Your task to perform on an android device: turn off improve location accuracy Image 0: 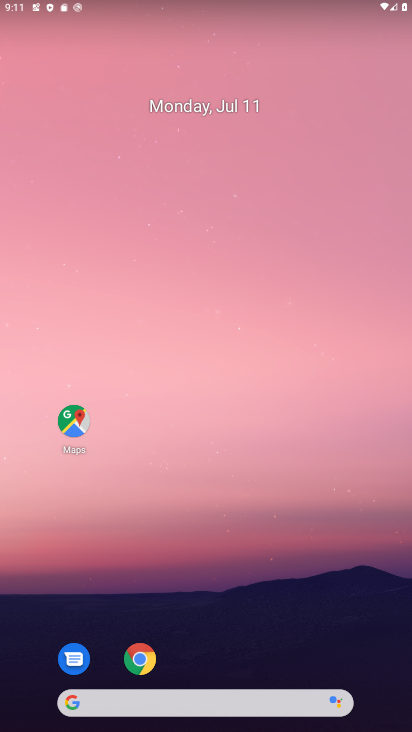
Step 0: drag from (196, 697) to (164, 68)
Your task to perform on an android device: turn off improve location accuracy Image 1: 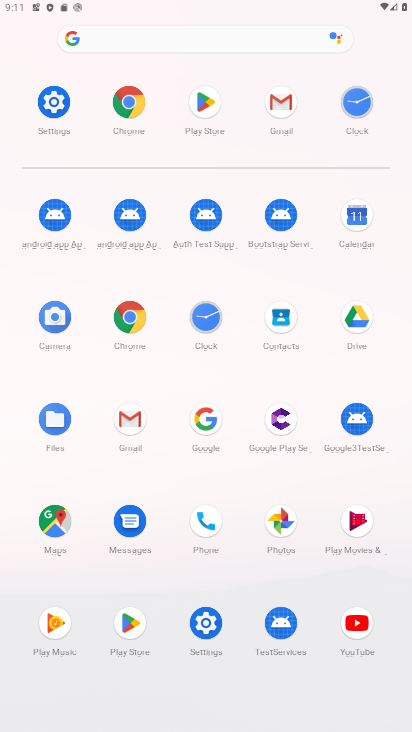
Step 1: click (44, 100)
Your task to perform on an android device: turn off improve location accuracy Image 2: 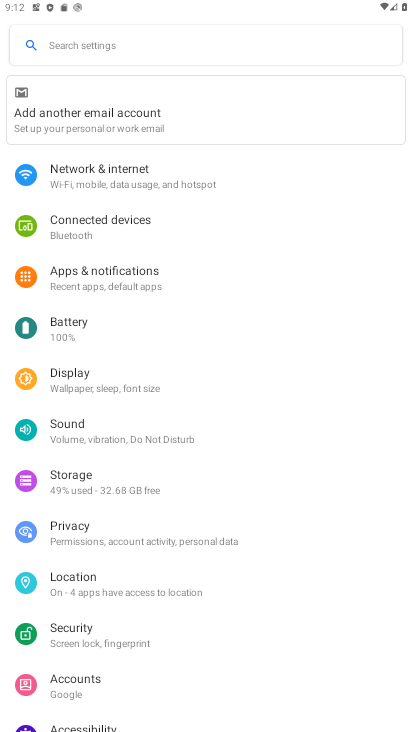
Step 2: click (69, 577)
Your task to perform on an android device: turn off improve location accuracy Image 3: 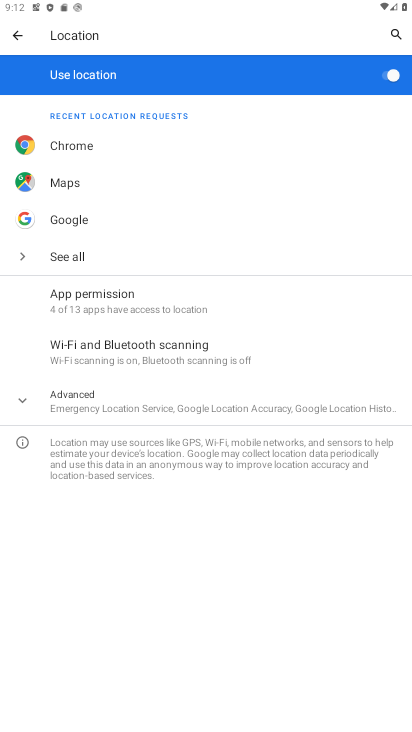
Step 3: click (98, 399)
Your task to perform on an android device: turn off improve location accuracy Image 4: 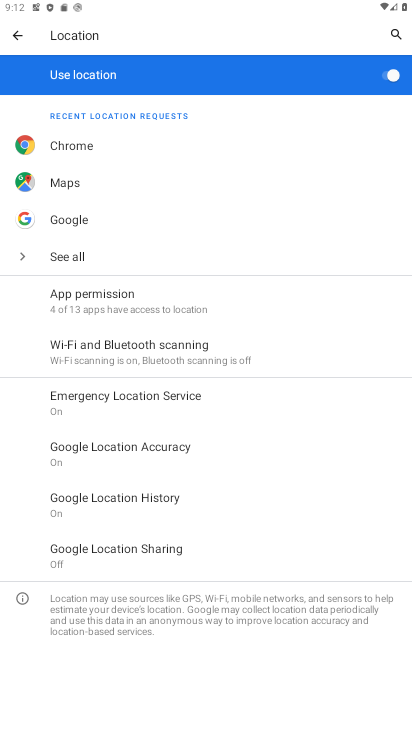
Step 4: click (141, 446)
Your task to perform on an android device: turn off improve location accuracy Image 5: 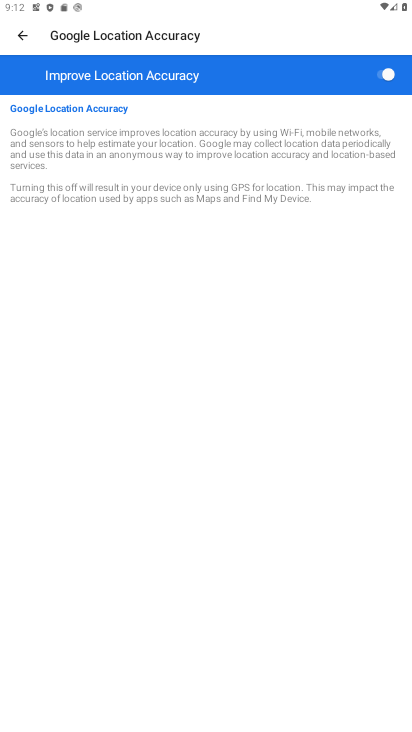
Step 5: click (380, 72)
Your task to perform on an android device: turn off improve location accuracy Image 6: 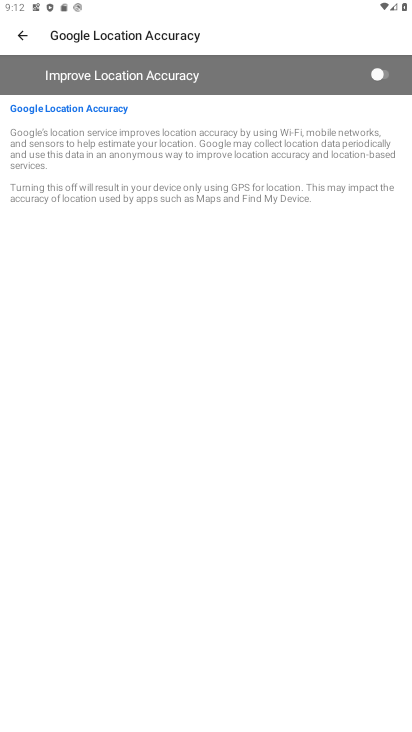
Step 6: task complete